Your task to perform on an android device: turn off location history Image 0: 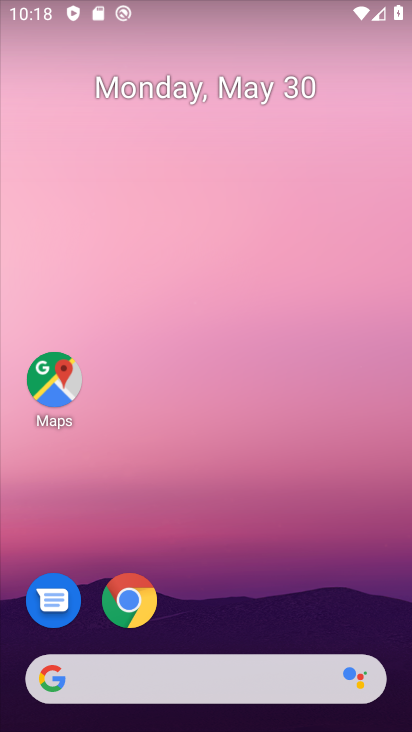
Step 0: drag from (275, 568) to (286, 124)
Your task to perform on an android device: turn off location history Image 1: 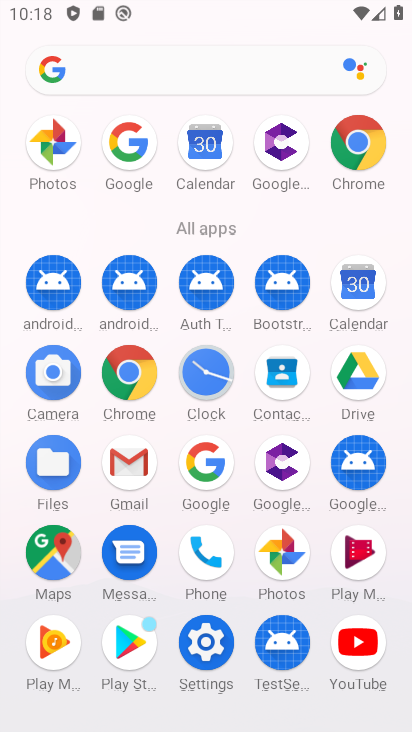
Step 1: drag from (202, 515) to (214, 169)
Your task to perform on an android device: turn off location history Image 2: 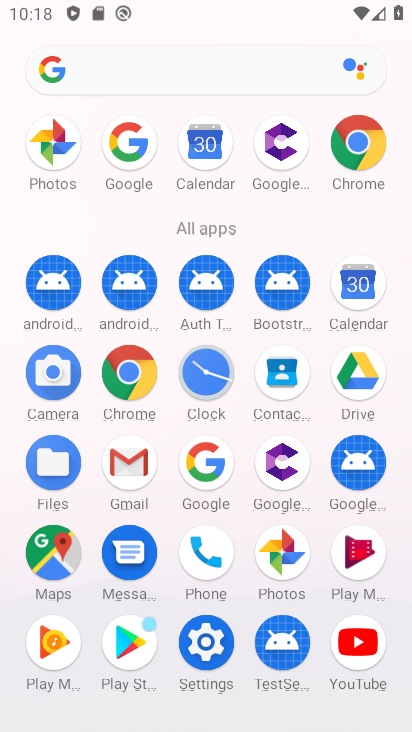
Step 2: click (43, 512)
Your task to perform on an android device: turn off location history Image 3: 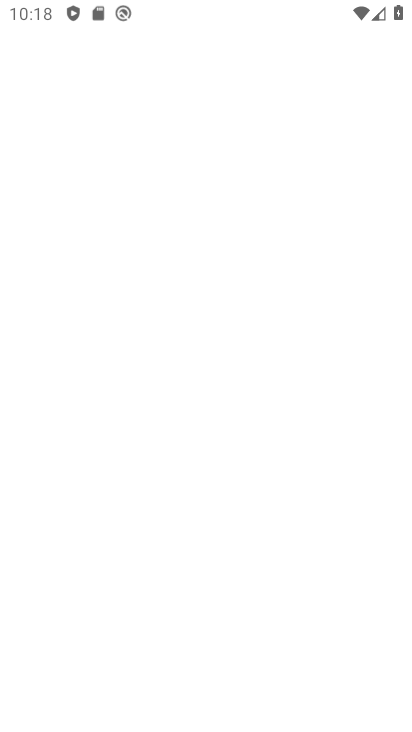
Step 3: press back button
Your task to perform on an android device: turn off location history Image 4: 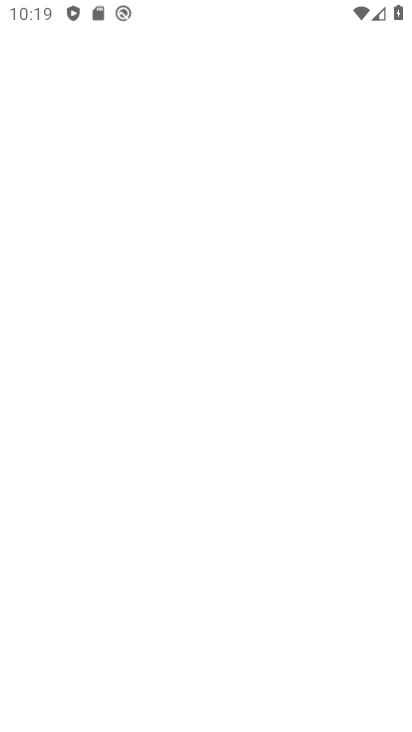
Step 4: press home button
Your task to perform on an android device: turn off location history Image 5: 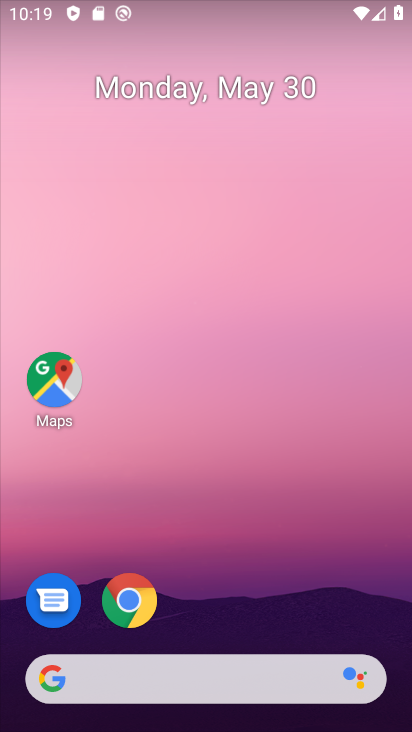
Step 5: click (58, 369)
Your task to perform on an android device: turn off location history Image 6: 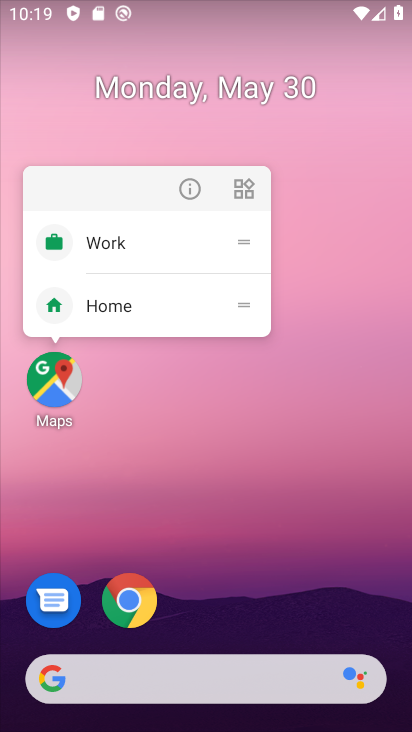
Step 6: click (46, 384)
Your task to perform on an android device: turn off location history Image 7: 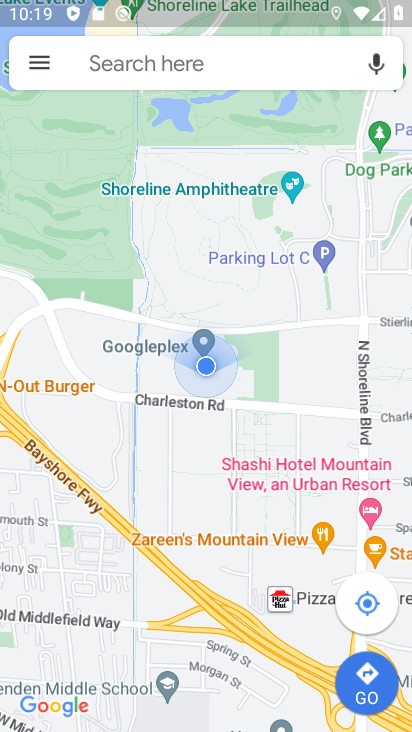
Step 7: click (29, 60)
Your task to perform on an android device: turn off location history Image 8: 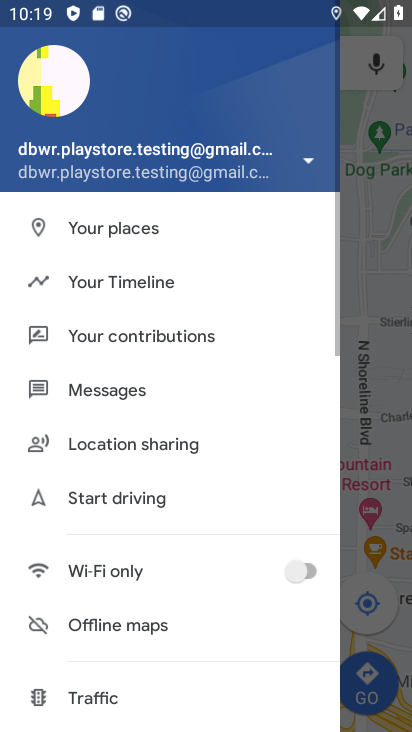
Step 8: click (123, 277)
Your task to perform on an android device: turn off location history Image 9: 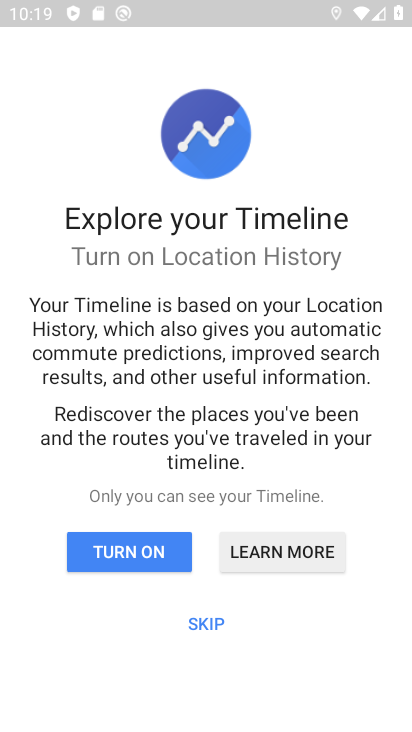
Step 9: click (131, 560)
Your task to perform on an android device: turn off location history Image 10: 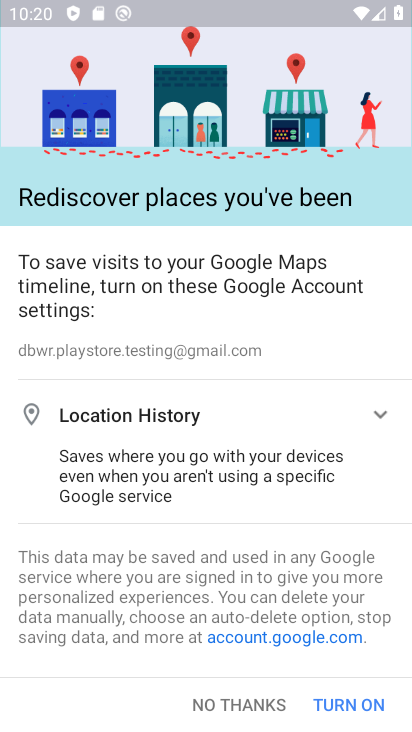
Step 10: click (377, 405)
Your task to perform on an android device: turn off location history Image 11: 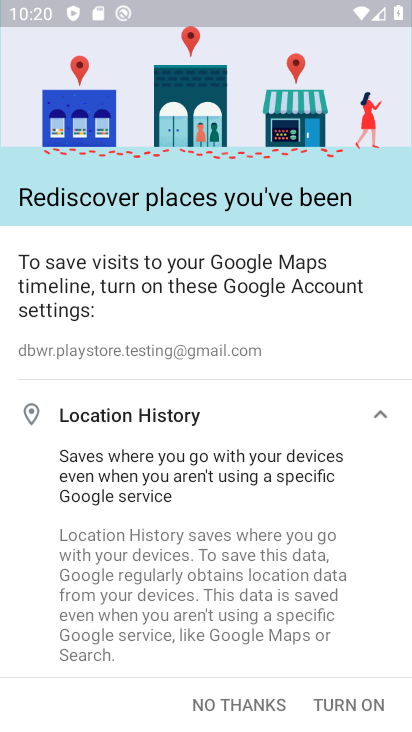
Step 11: drag from (289, 600) to (317, 287)
Your task to perform on an android device: turn off location history Image 12: 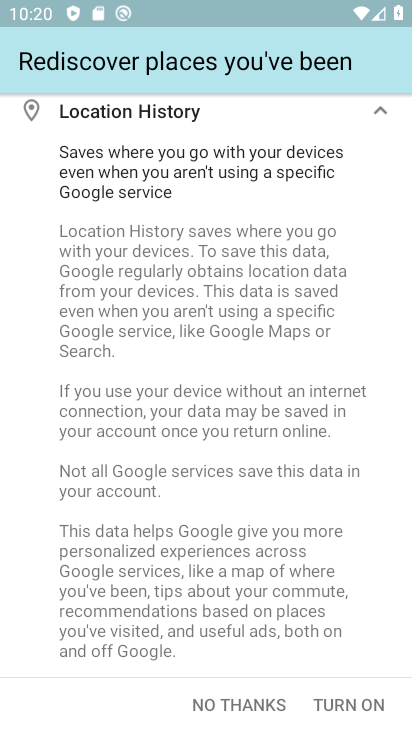
Step 12: drag from (258, 511) to (280, 216)
Your task to perform on an android device: turn off location history Image 13: 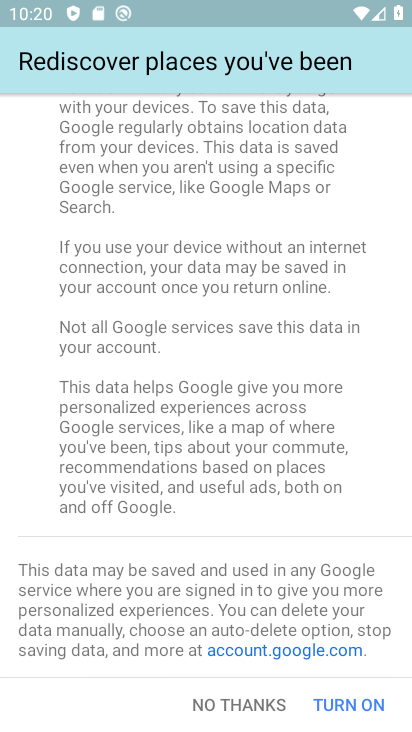
Step 13: drag from (262, 497) to (285, 361)
Your task to perform on an android device: turn off location history Image 14: 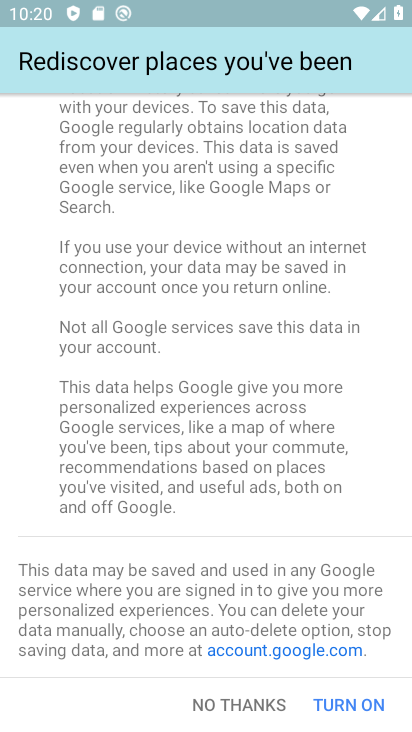
Step 14: click (264, 699)
Your task to perform on an android device: turn off location history Image 15: 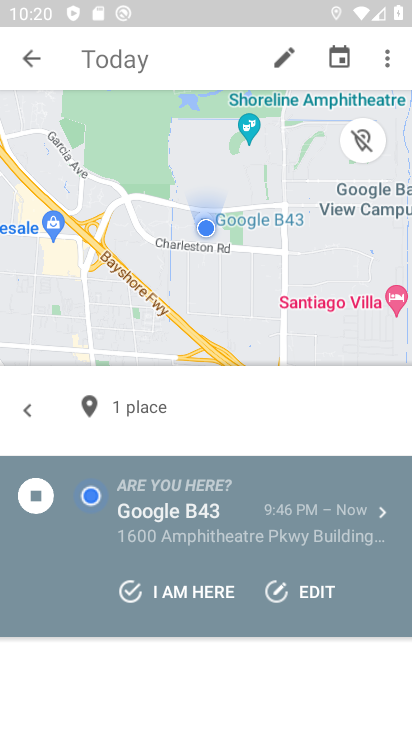
Step 15: click (388, 56)
Your task to perform on an android device: turn off location history Image 16: 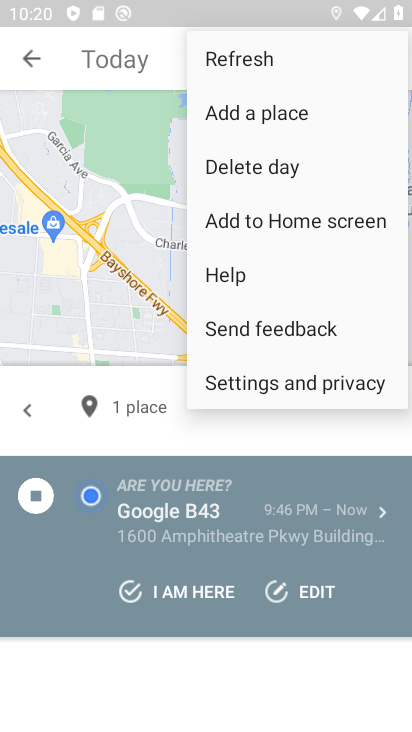
Step 16: click (310, 380)
Your task to perform on an android device: turn off location history Image 17: 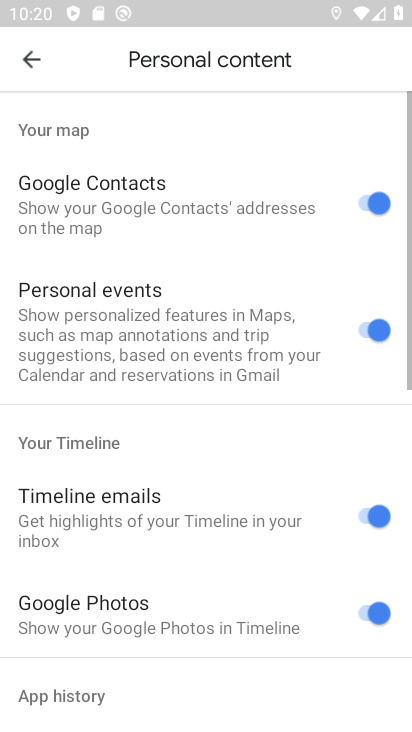
Step 17: drag from (277, 609) to (271, 143)
Your task to perform on an android device: turn off location history Image 18: 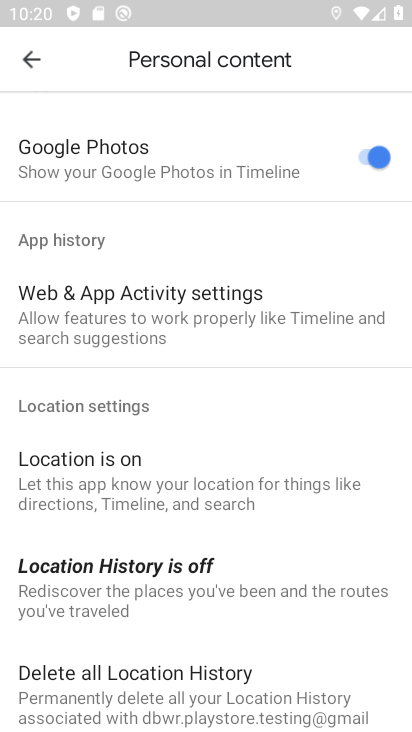
Step 18: click (100, 599)
Your task to perform on an android device: turn off location history Image 19: 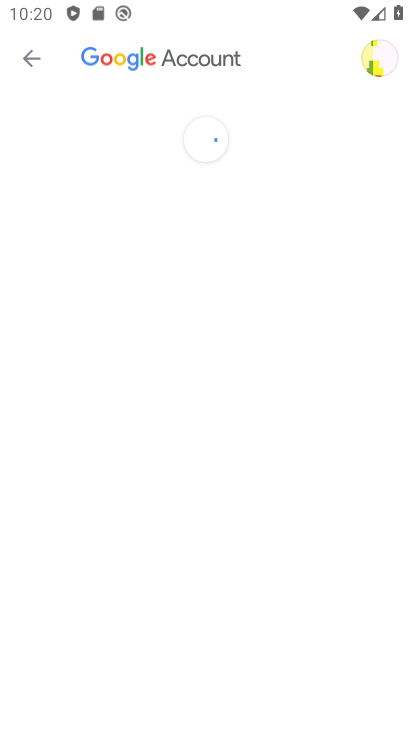
Step 19: drag from (236, 577) to (249, 146)
Your task to perform on an android device: turn off location history Image 20: 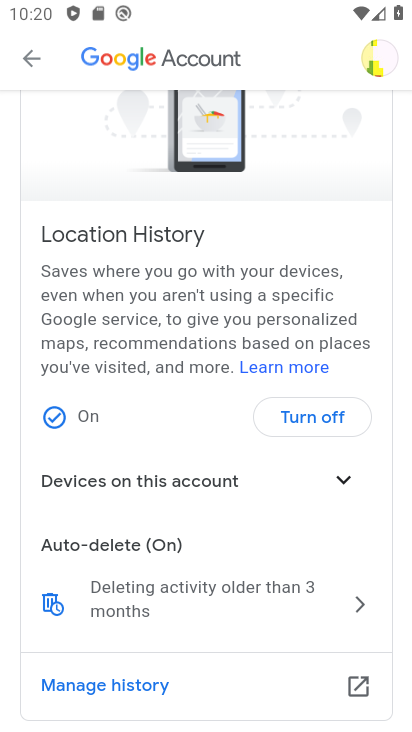
Step 20: click (310, 415)
Your task to perform on an android device: turn off location history Image 21: 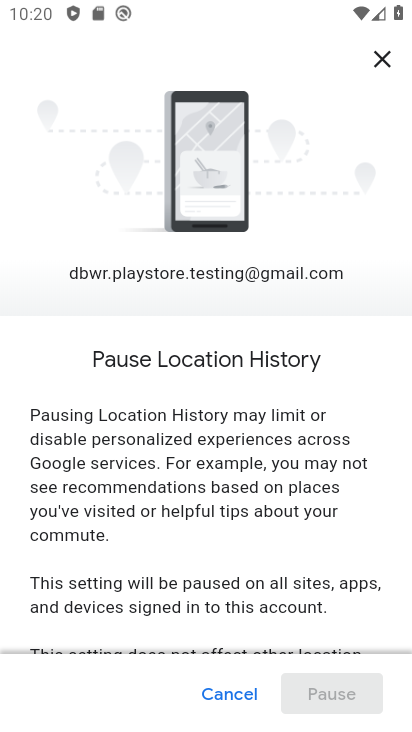
Step 21: drag from (289, 540) to (291, 155)
Your task to perform on an android device: turn off location history Image 22: 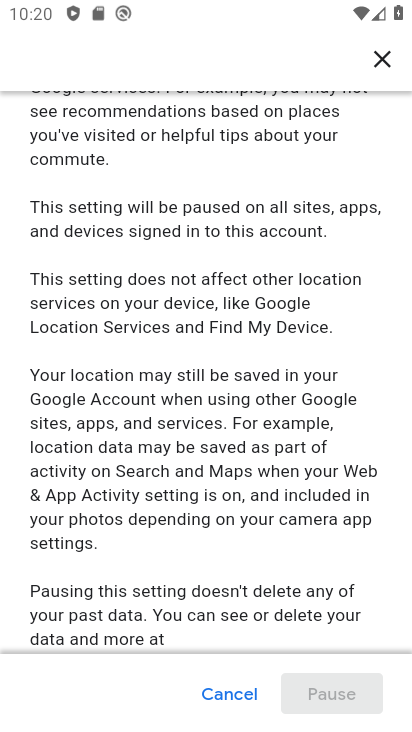
Step 22: drag from (197, 522) to (212, 152)
Your task to perform on an android device: turn off location history Image 23: 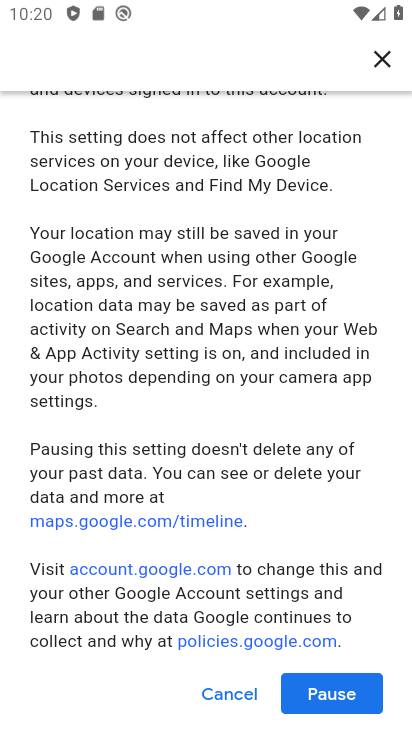
Step 23: drag from (70, 522) to (99, 202)
Your task to perform on an android device: turn off location history Image 24: 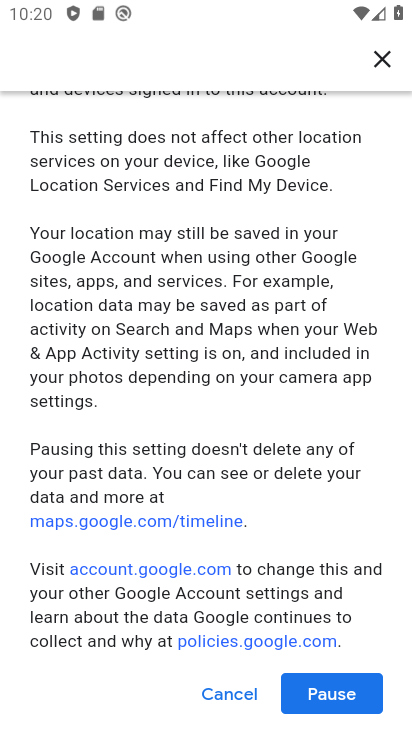
Step 24: click (335, 690)
Your task to perform on an android device: turn off location history Image 25: 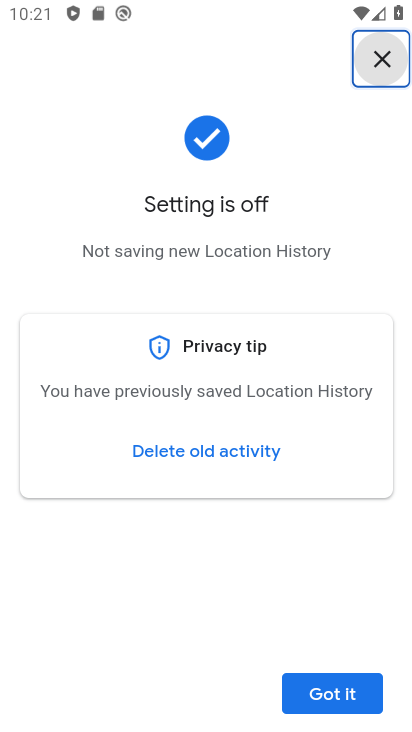
Step 25: click (313, 693)
Your task to perform on an android device: turn off location history Image 26: 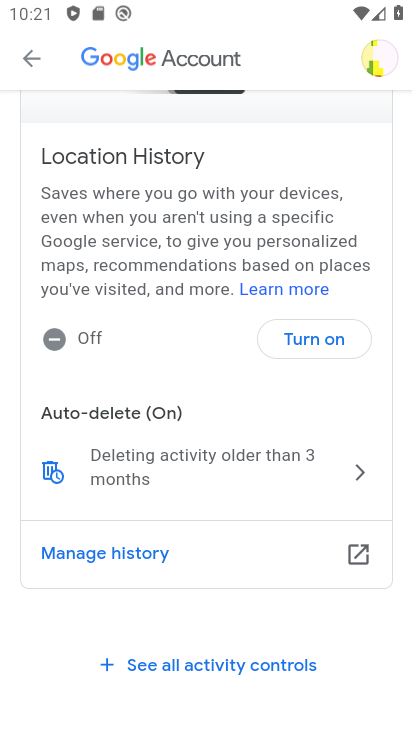
Step 26: task complete